Your task to perform on an android device: Turn on the flashlight Image 0: 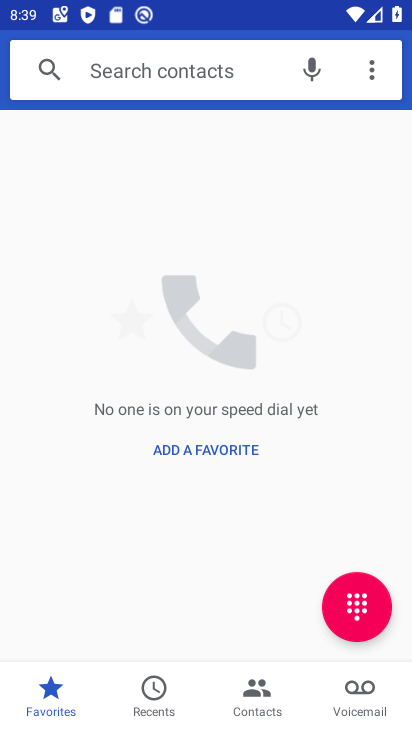
Step 0: press home button
Your task to perform on an android device: Turn on the flashlight Image 1: 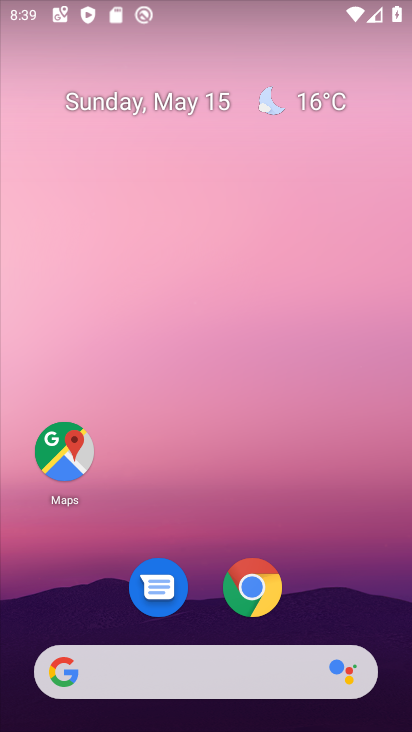
Step 1: task complete